Your task to perform on an android device: Search for Italian restaurants on Maps Image 0: 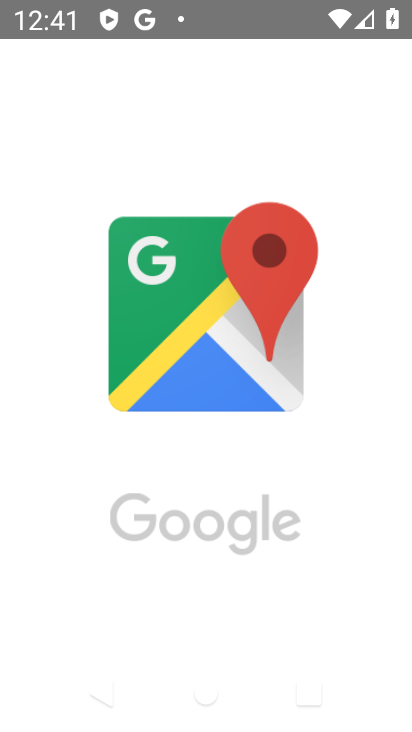
Step 0: click (263, 470)
Your task to perform on an android device: Search for Italian restaurants on Maps Image 1: 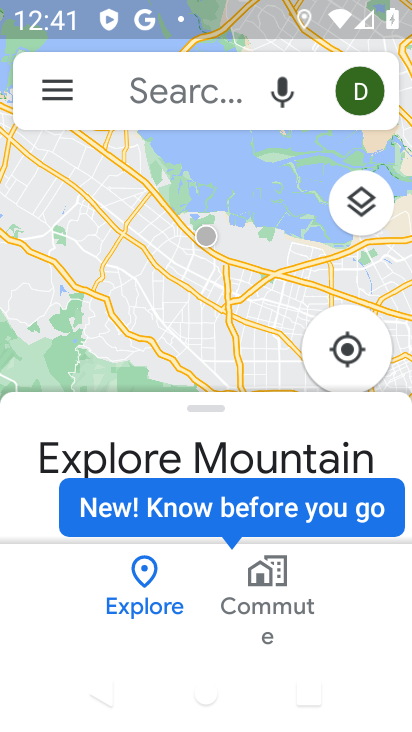
Step 1: press home button
Your task to perform on an android device: Search for Italian restaurants on Maps Image 2: 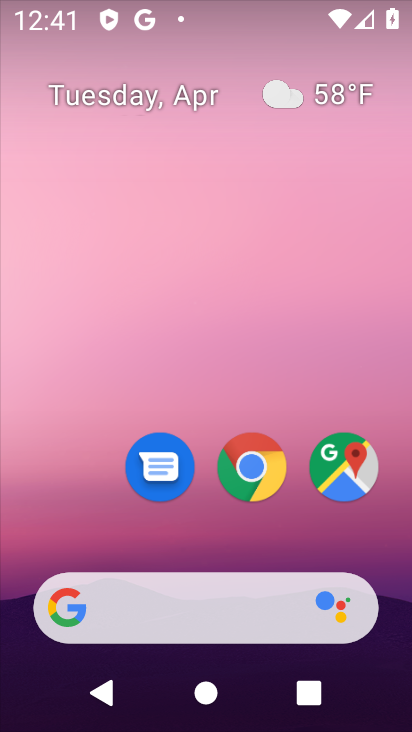
Step 2: click (328, 442)
Your task to perform on an android device: Search for Italian restaurants on Maps Image 3: 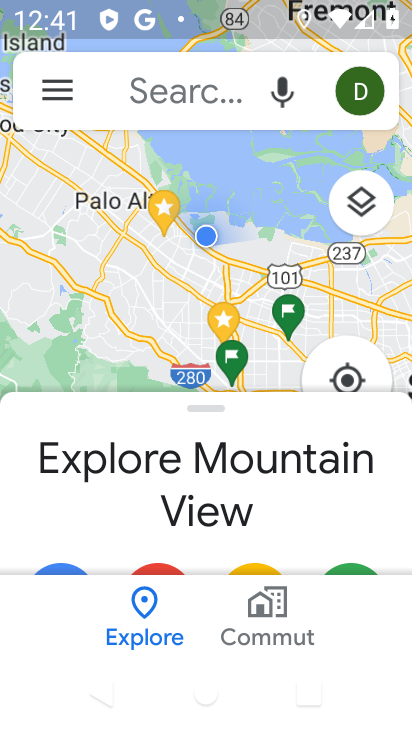
Step 3: click (207, 69)
Your task to perform on an android device: Search for Italian restaurants on Maps Image 4: 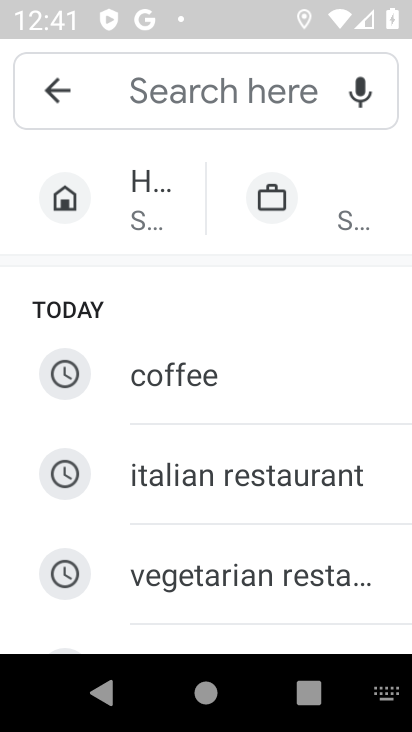
Step 4: click (354, 492)
Your task to perform on an android device: Search for Italian restaurants on Maps Image 5: 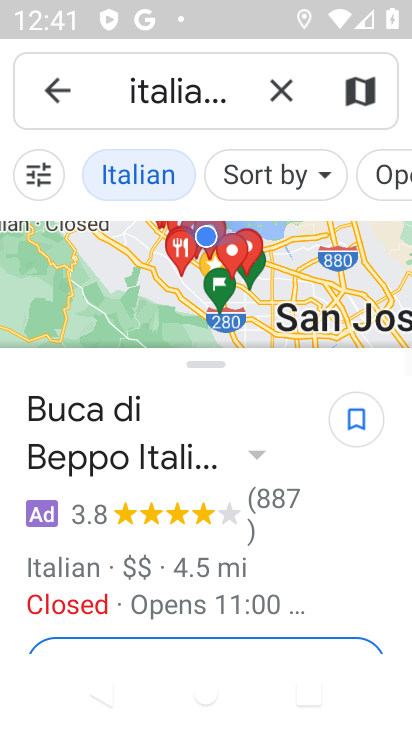
Step 5: task complete